Your task to perform on an android device: Open Android settings Image 0: 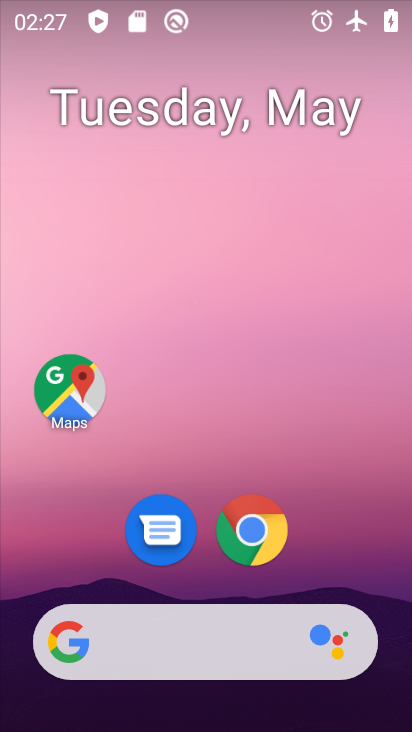
Step 0: drag from (217, 591) to (248, 177)
Your task to perform on an android device: Open Android settings Image 1: 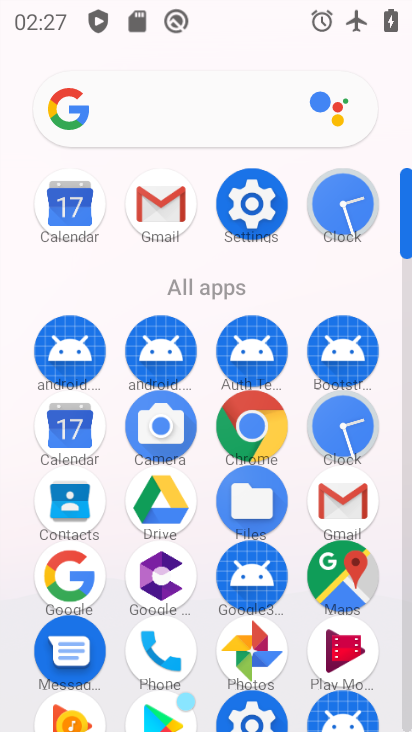
Step 1: click (251, 185)
Your task to perform on an android device: Open Android settings Image 2: 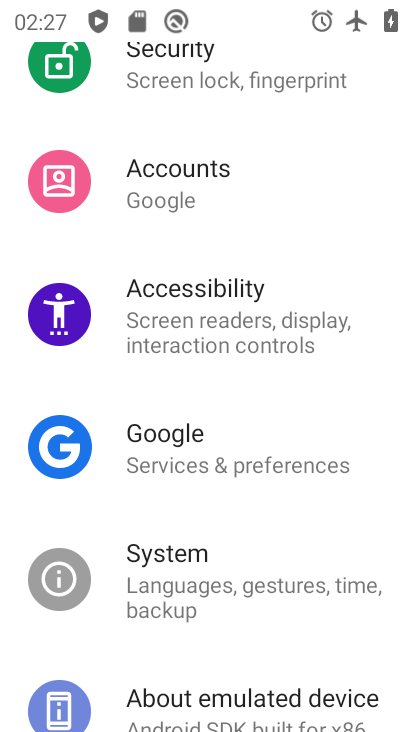
Step 2: task complete